Your task to perform on an android device: Open my contact list Image 0: 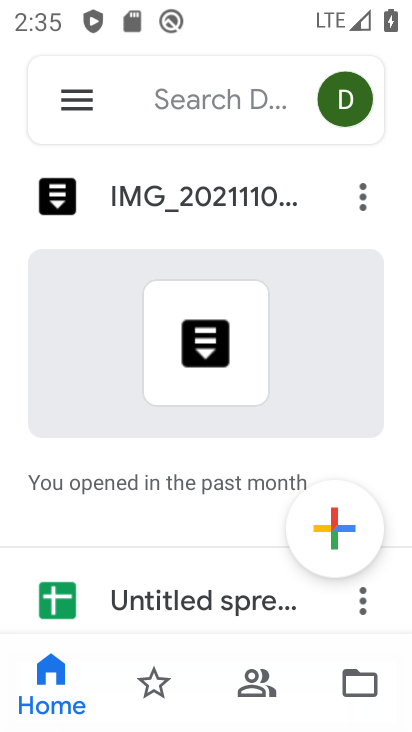
Step 0: press home button
Your task to perform on an android device: Open my contact list Image 1: 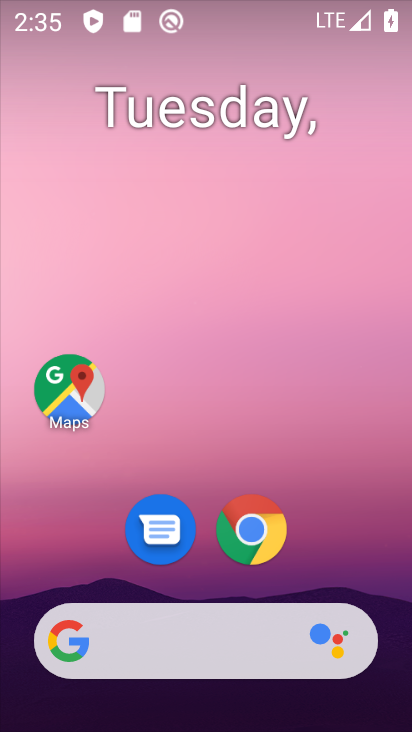
Step 1: drag from (387, 613) to (279, 90)
Your task to perform on an android device: Open my contact list Image 2: 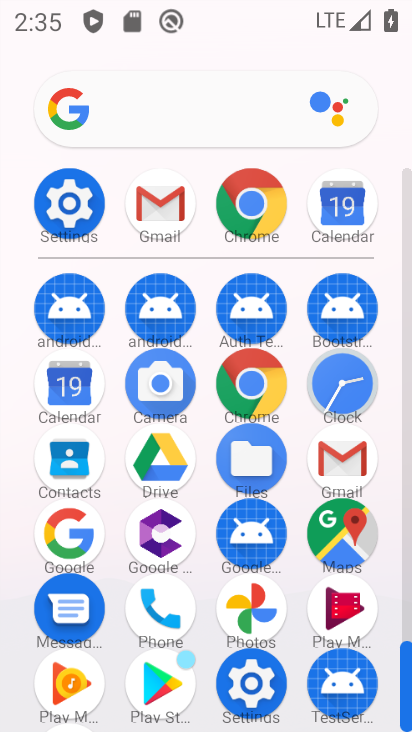
Step 2: click (51, 450)
Your task to perform on an android device: Open my contact list Image 3: 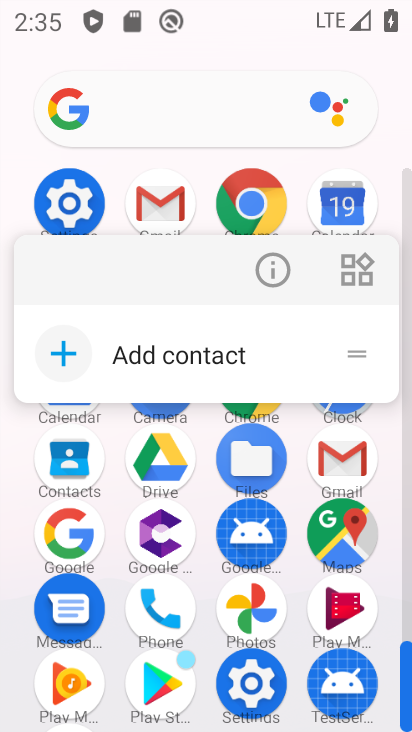
Step 3: click (67, 463)
Your task to perform on an android device: Open my contact list Image 4: 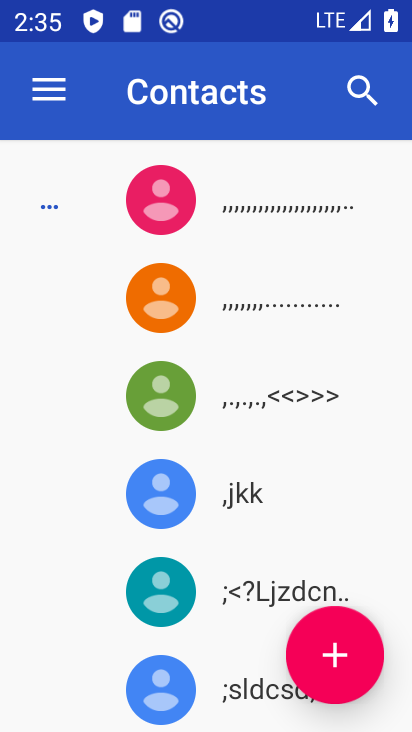
Step 4: task complete